Your task to perform on an android device: What's the weather going to be this weekend? Image 0: 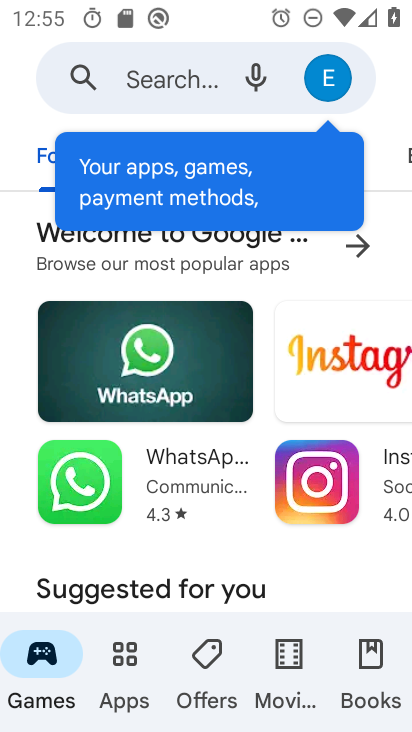
Step 0: press back button
Your task to perform on an android device: What's the weather going to be this weekend? Image 1: 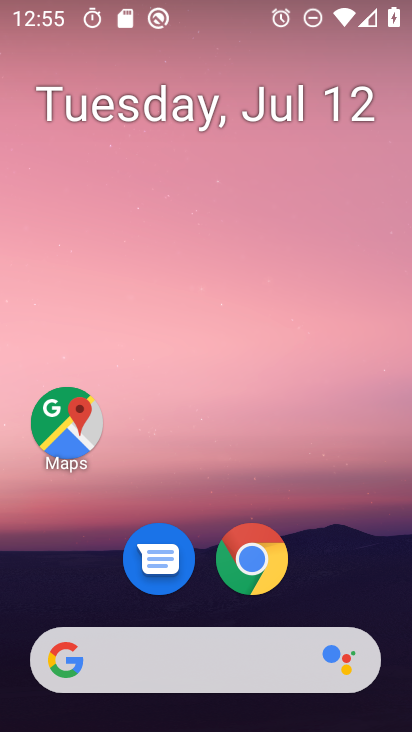
Step 1: click (116, 666)
Your task to perform on an android device: What's the weather going to be this weekend? Image 2: 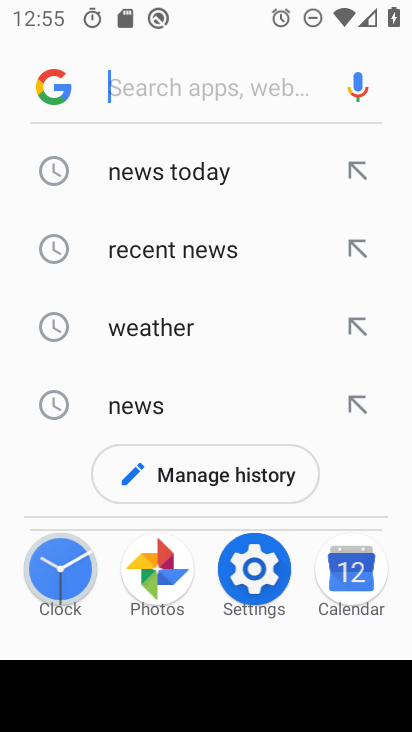
Step 2: click (170, 329)
Your task to perform on an android device: What's the weather going to be this weekend? Image 3: 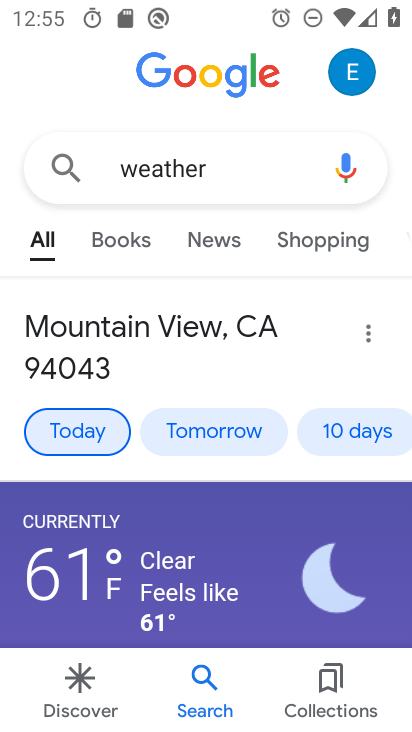
Step 3: click (321, 428)
Your task to perform on an android device: What's the weather going to be this weekend? Image 4: 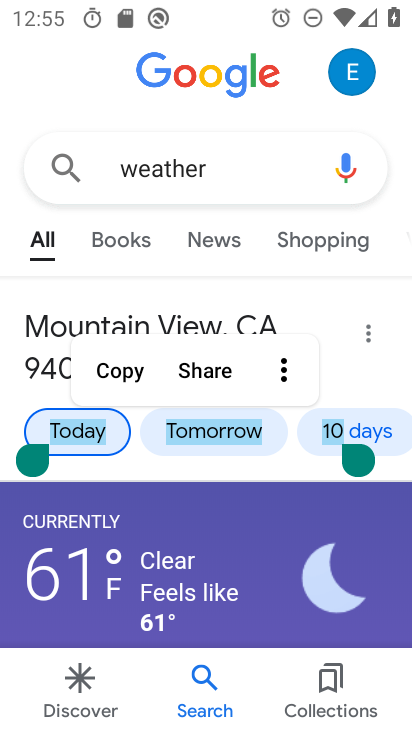
Step 4: click (209, 509)
Your task to perform on an android device: What's the weather going to be this weekend? Image 5: 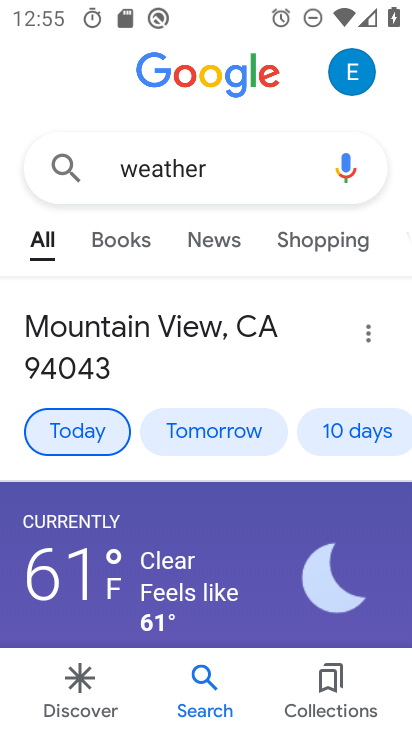
Step 5: click (353, 433)
Your task to perform on an android device: What's the weather going to be this weekend? Image 6: 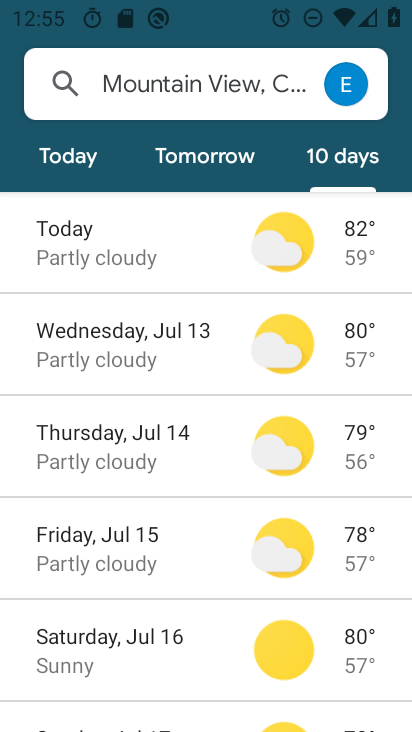
Step 6: task complete